Your task to perform on an android device: delete location history Image 0: 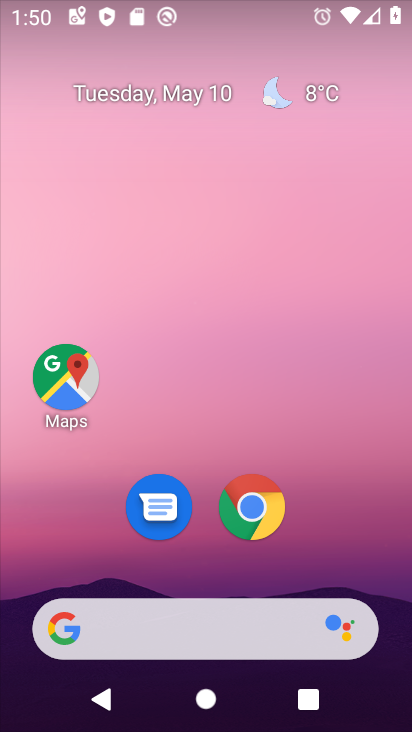
Step 0: drag from (225, 719) to (222, 233)
Your task to perform on an android device: delete location history Image 1: 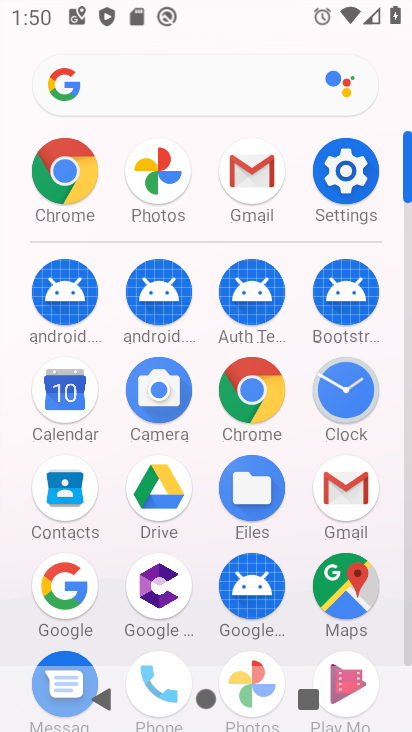
Step 1: click (351, 586)
Your task to perform on an android device: delete location history Image 2: 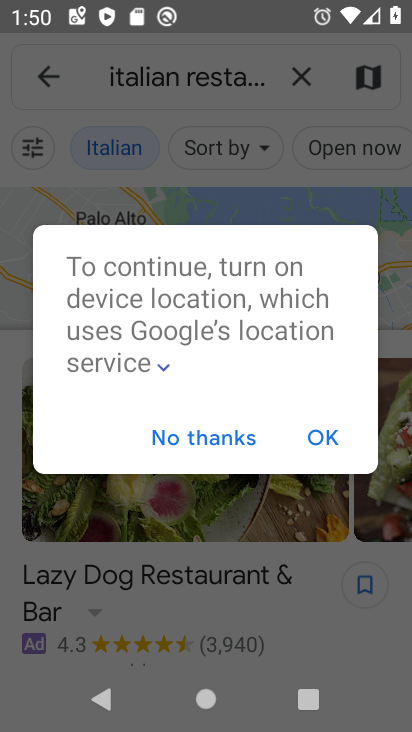
Step 2: click (223, 432)
Your task to perform on an android device: delete location history Image 3: 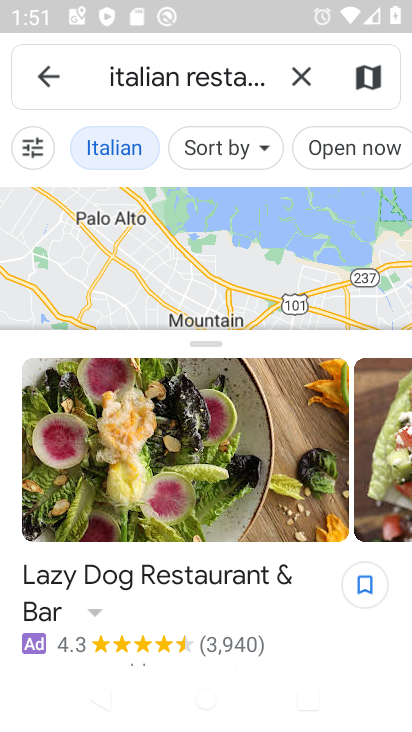
Step 3: click (39, 79)
Your task to perform on an android device: delete location history Image 4: 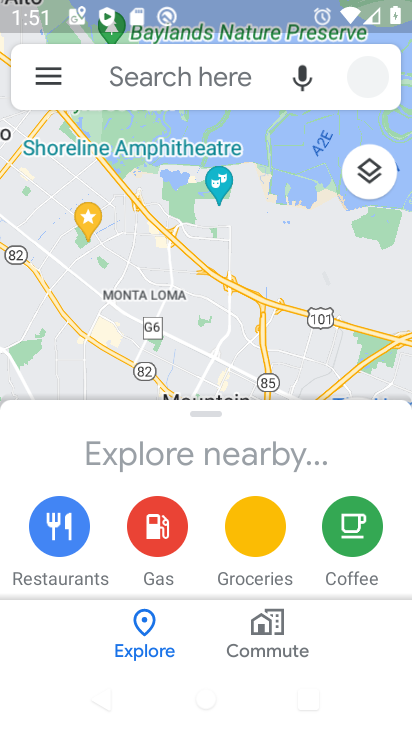
Step 4: click (40, 77)
Your task to perform on an android device: delete location history Image 5: 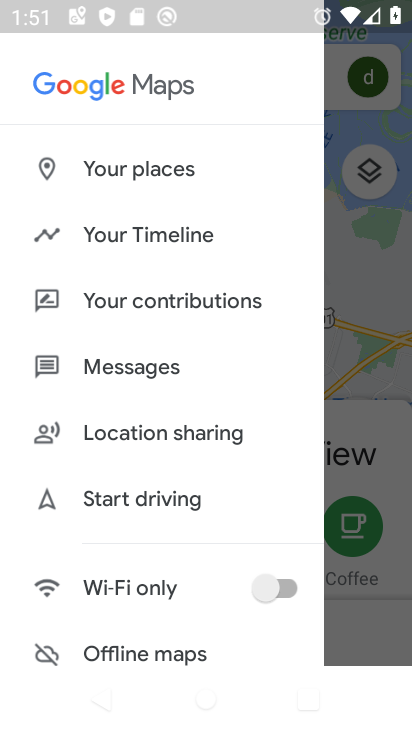
Step 5: click (136, 230)
Your task to perform on an android device: delete location history Image 6: 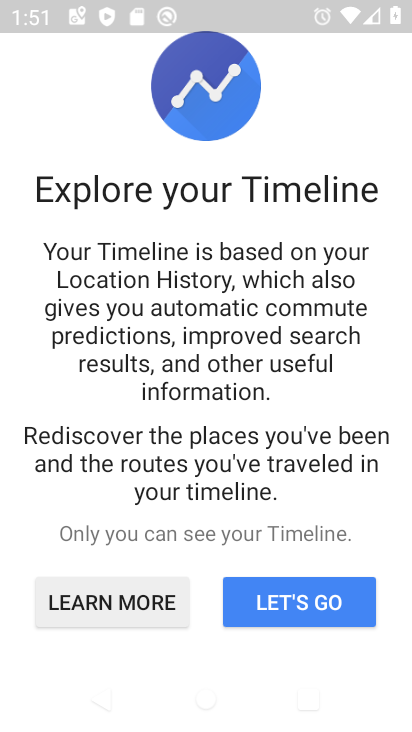
Step 6: click (258, 603)
Your task to perform on an android device: delete location history Image 7: 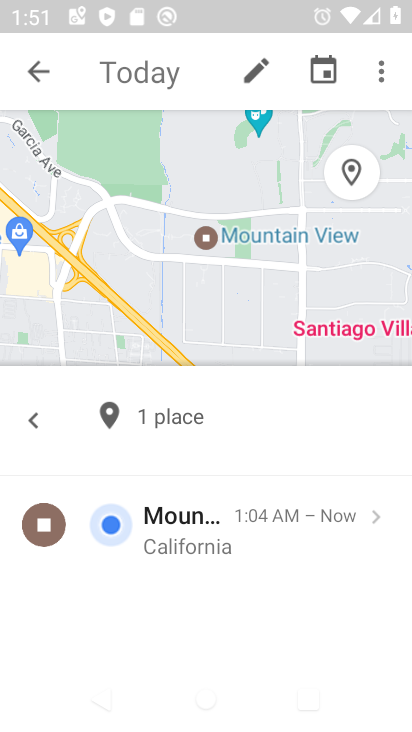
Step 7: click (380, 77)
Your task to perform on an android device: delete location history Image 8: 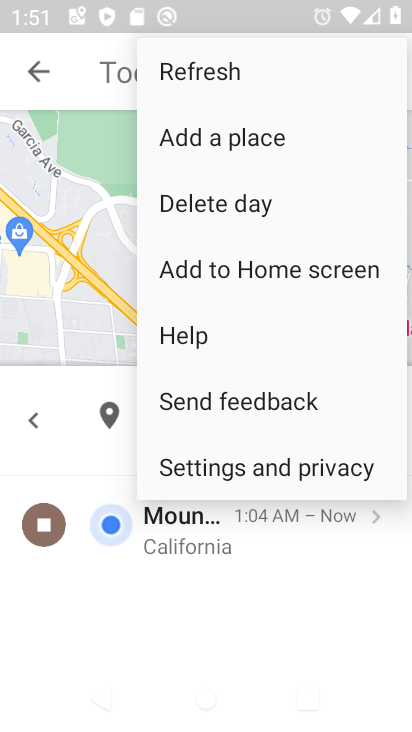
Step 8: click (250, 468)
Your task to perform on an android device: delete location history Image 9: 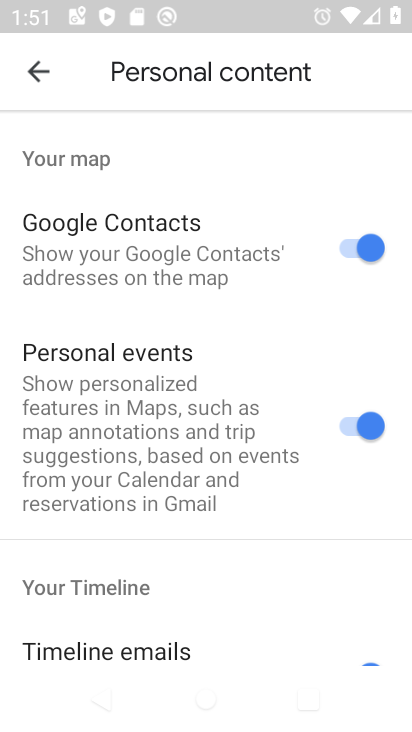
Step 9: drag from (164, 615) to (142, 230)
Your task to perform on an android device: delete location history Image 10: 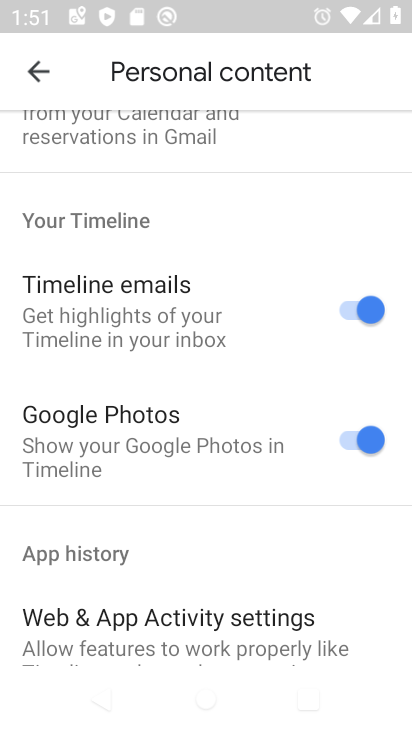
Step 10: drag from (181, 635) to (182, 255)
Your task to perform on an android device: delete location history Image 11: 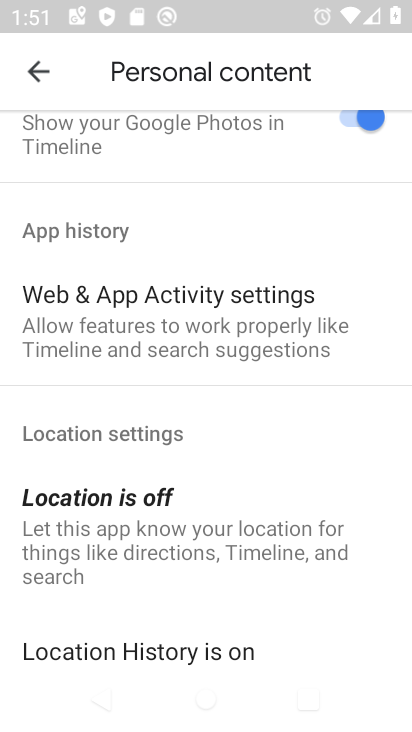
Step 11: drag from (168, 616) to (180, 309)
Your task to perform on an android device: delete location history Image 12: 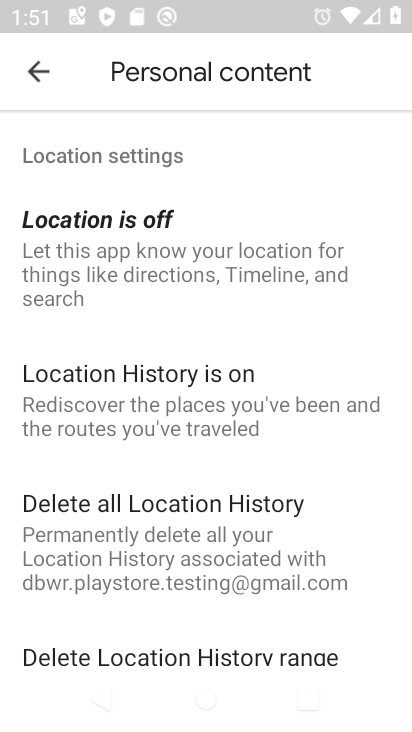
Step 12: click (135, 540)
Your task to perform on an android device: delete location history Image 13: 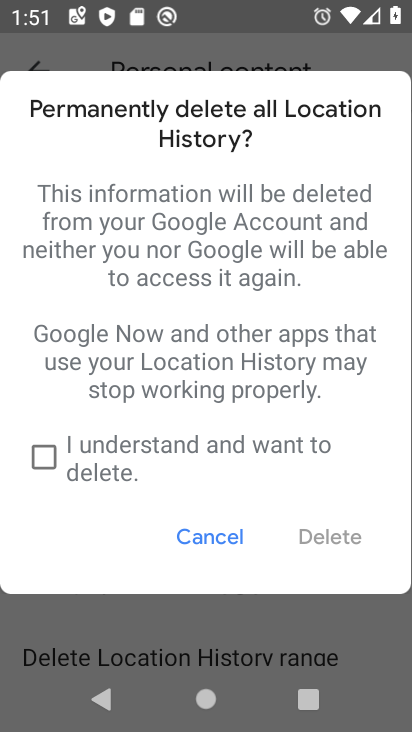
Step 13: click (57, 454)
Your task to perform on an android device: delete location history Image 14: 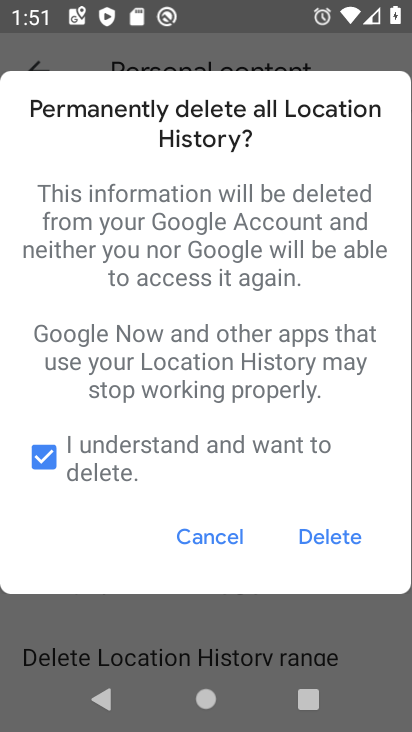
Step 14: click (320, 533)
Your task to perform on an android device: delete location history Image 15: 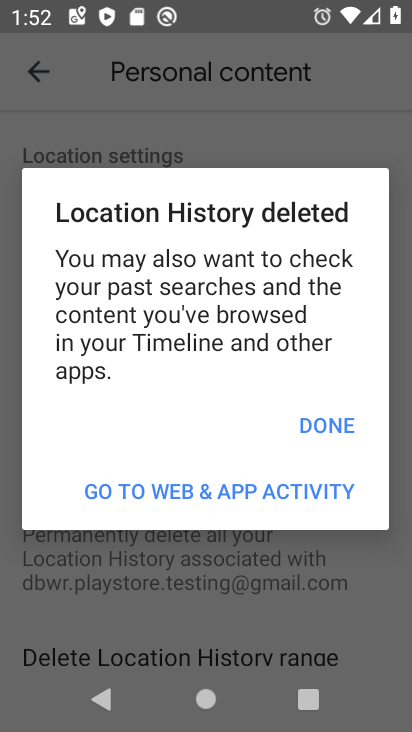
Step 15: click (336, 422)
Your task to perform on an android device: delete location history Image 16: 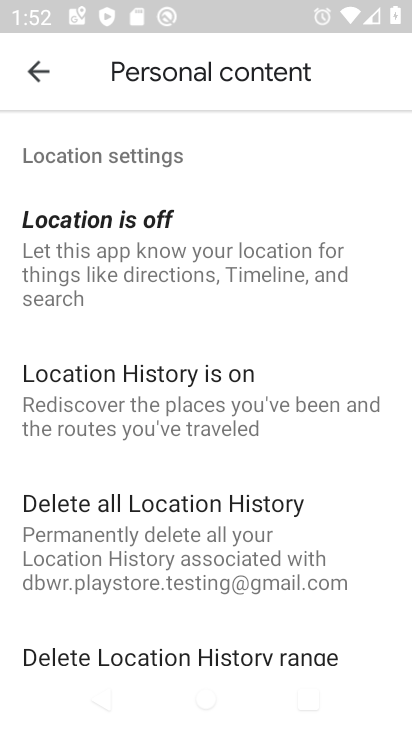
Step 16: task complete